Your task to perform on an android device: Turn off the flashlight Image 0: 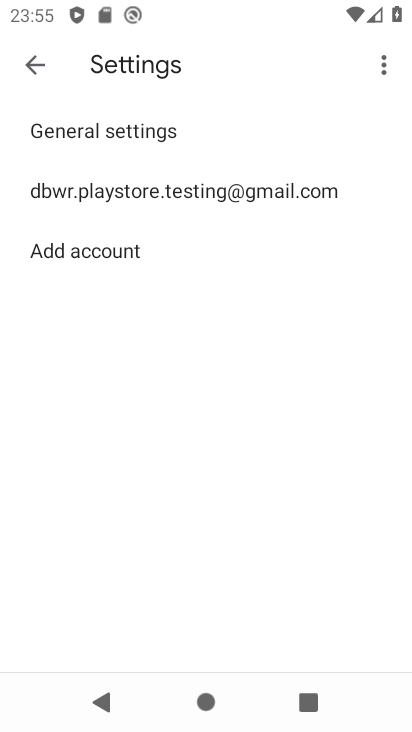
Step 0: press back button
Your task to perform on an android device: Turn off the flashlight Image 1: 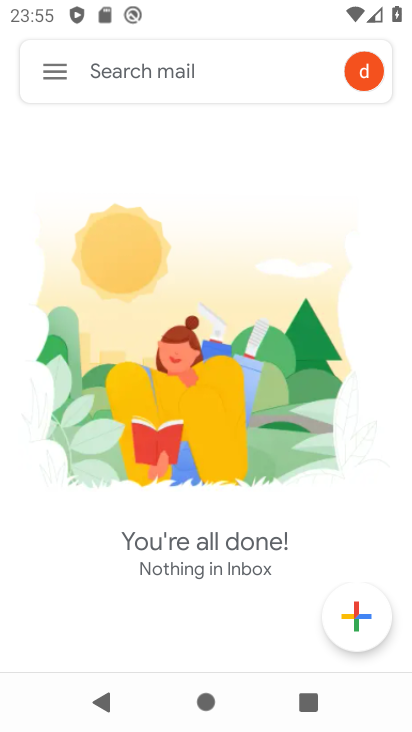
Step 1: press home button
Your task to perform on an android device: Turn off the flashlight Image 2: 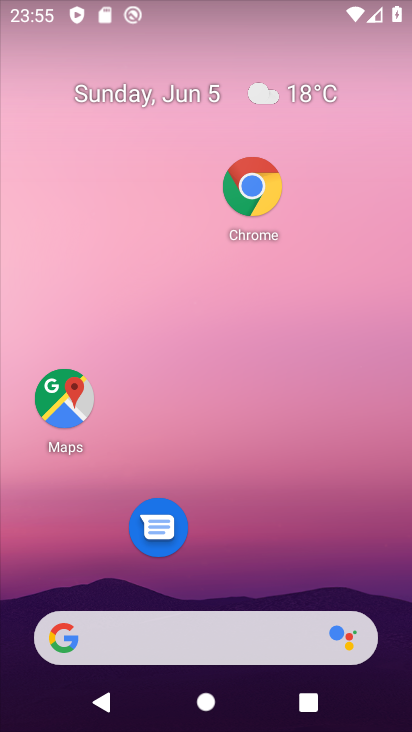
Step 2: drag from (218, 569) to (188, 300)
Your task to perform on an android device: Turn off the flashlight Image 3: 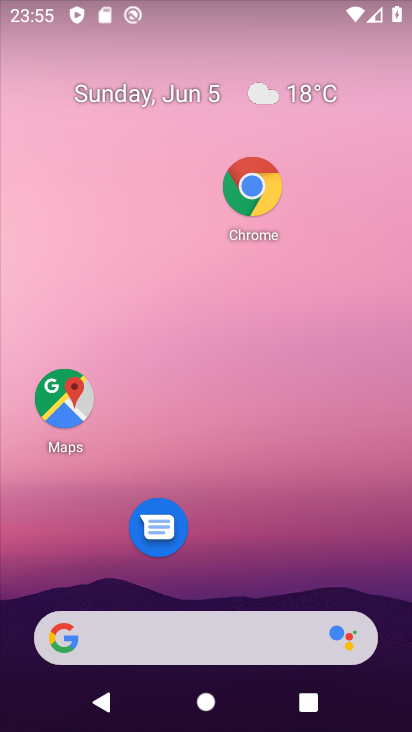
Step 3: drag from (222, 585) to (219, 183)
Your task to perform on an android device: Turn off the flashlight Image 4: 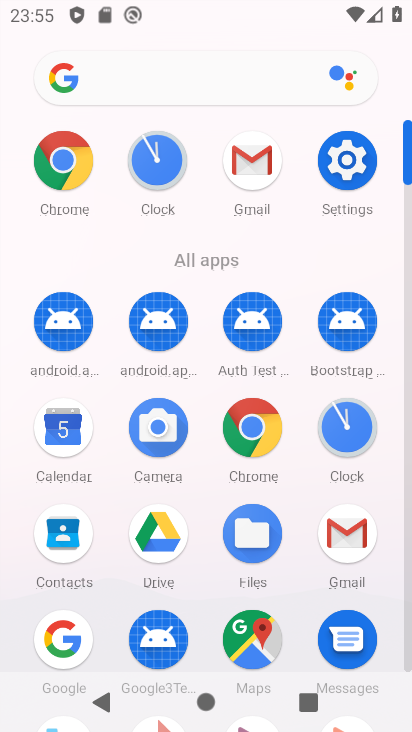
Step 4: click (341, 152)
Your task to perform on an android device: Turn off the flashlight Image 5: 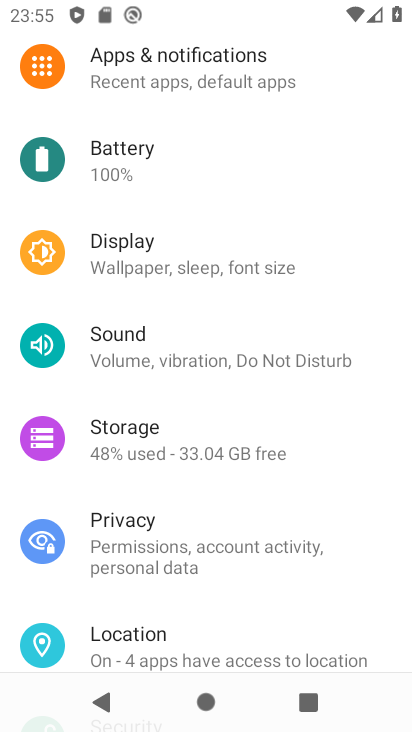
Step 5: task complete